Your task to perform on an android device: read, delete, or share a saved page in the chrome app Image 0: 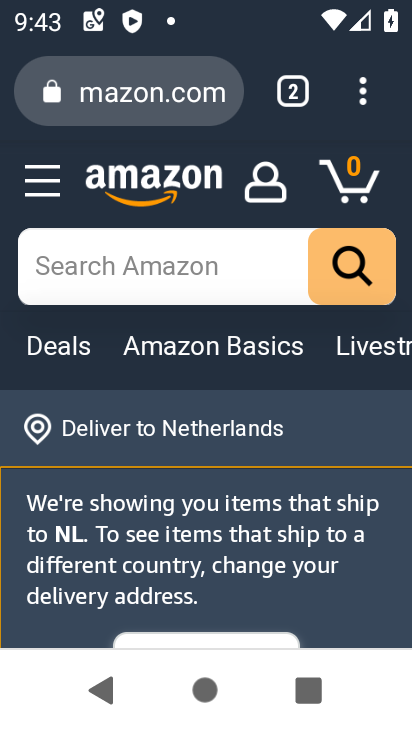
Step 0: press home button
Your task to perform on an android device: read, delete, or share a saved page in the chrome app Image 1: 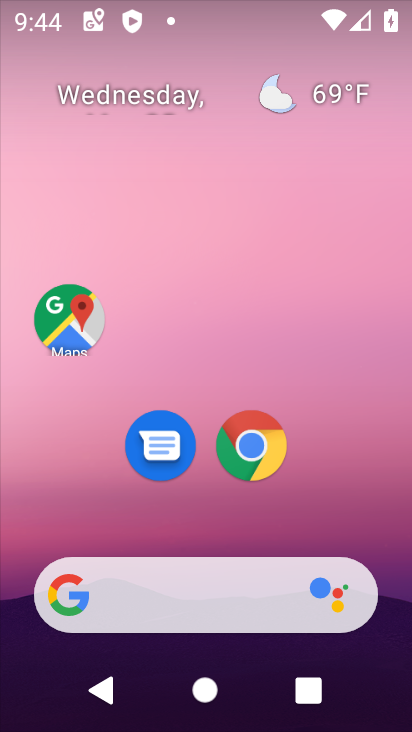
Step 1: click (258, 449)
Your task to perform on an android device: read, delete, or share a saved page in the chrome app Image 2: 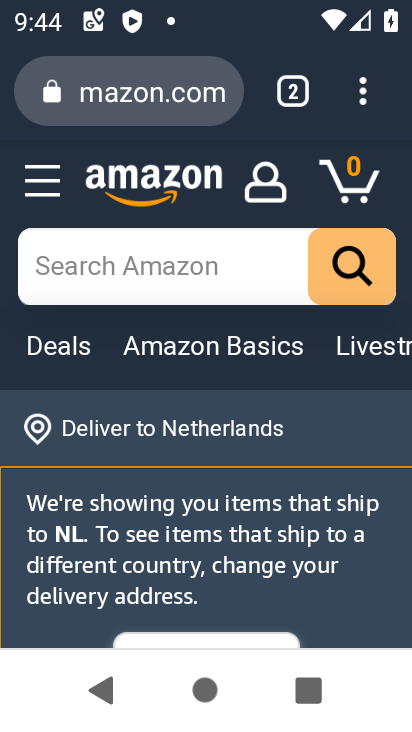
Step 2: click (367, 95)
Your task to perform on an android device: read, delete, or share a saved page in the chrome app Image 3: 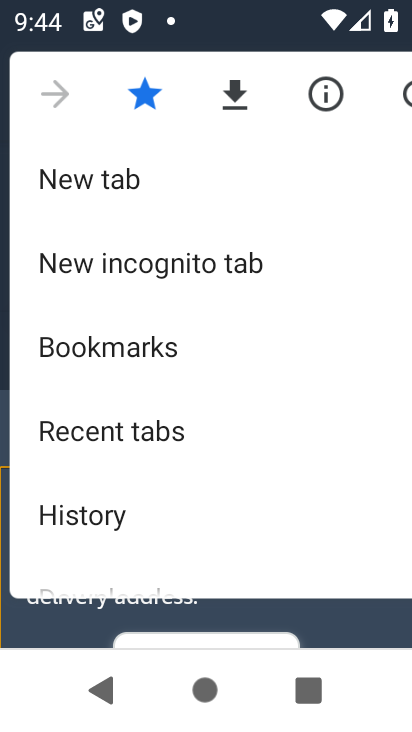
Step 3: drag from (233, 539) to (270, 211)
Your task to perform on an android device: read, delete, or share a saved page in the chrome app Image 4: 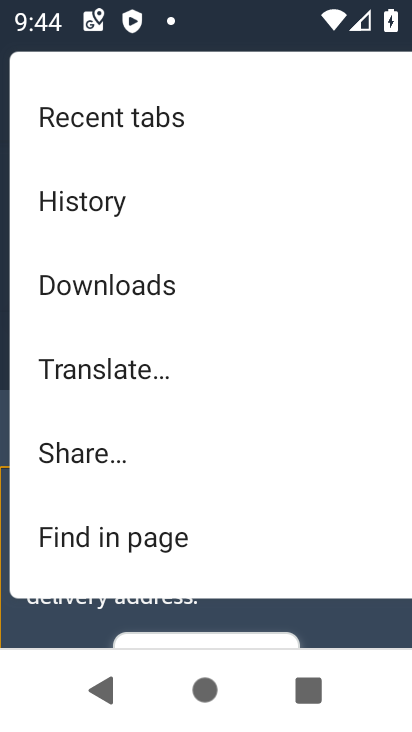
Step 4: click (122, 284)
Your task to perform on an android device: read, delete, or share a saved page in the chrome app Image 5: 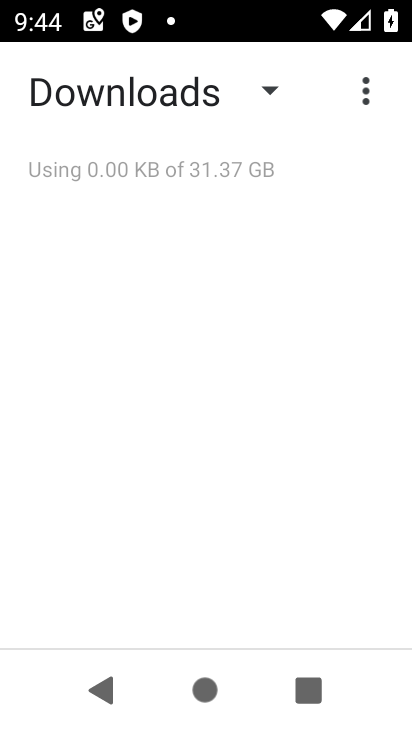
Step 5: click (275, 92)
Your task to perform on an android device: read, delete, or share a saved page in the chrome app Image 6: 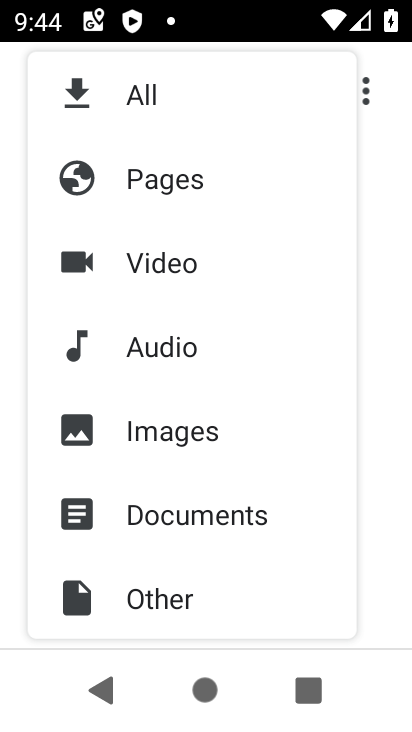
Step 6: click (188, 186)
Your task to perform on an android device: read, delete, or share a saved page in the chrome app Image 7: 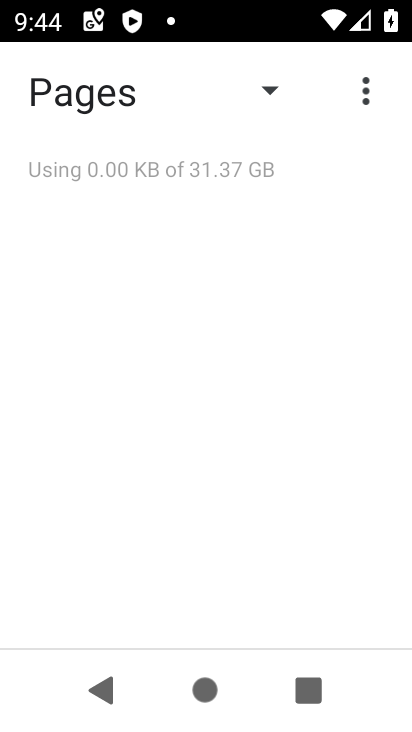
Step 7: task complete